Your task to perform on an android device: choose inbox layout in the gmail app Image 0: 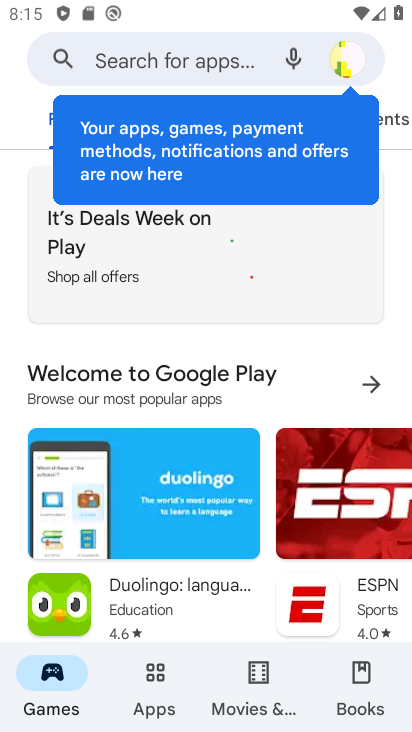
Step 0: press home button
Your task to perform on an android device: choose inbox layout in the gmail app Image 1: 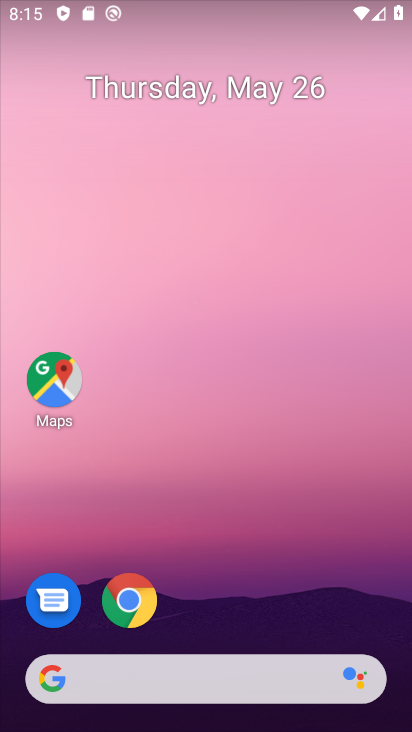
Step 1: click (296, 61)
Your task to perform on an android device: choose inbox layout in the gmail app Image 2: 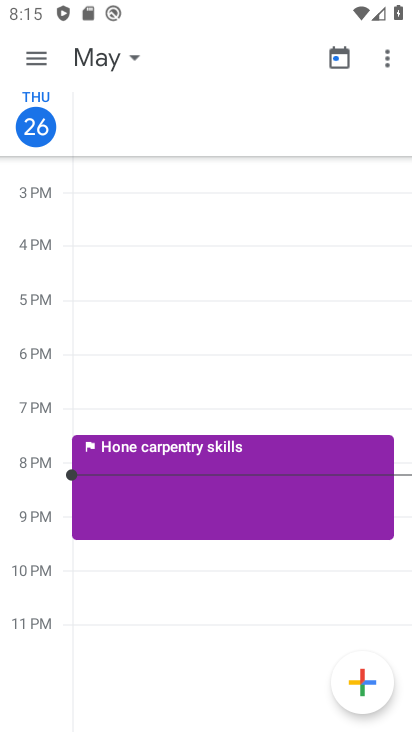
Step 2: press home button
Your task to perform on an android device: choose inbox layout in the gmail app Image 3: 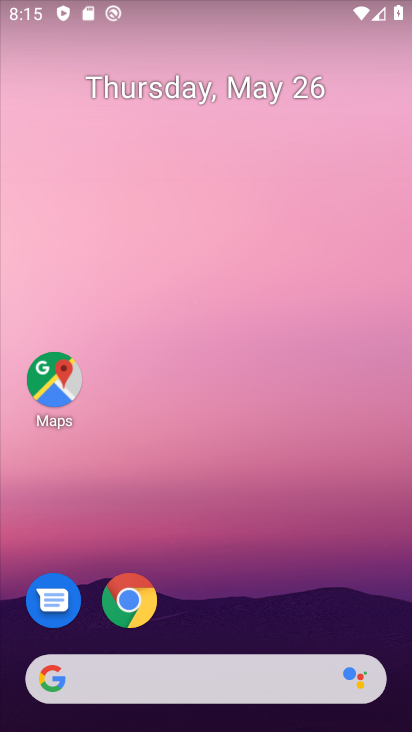
Step 3: drag from (229, 624) to (147, 2)
Your task to perform on an android device: choose inbox layout in the gmail app Image 4: 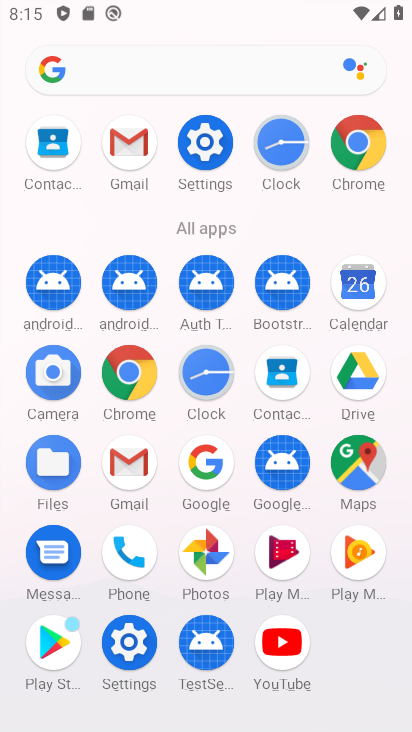
Step 4: click (124, 150)
Your task to perform on an android device: choose inbox layout in the gmail app Image 5: 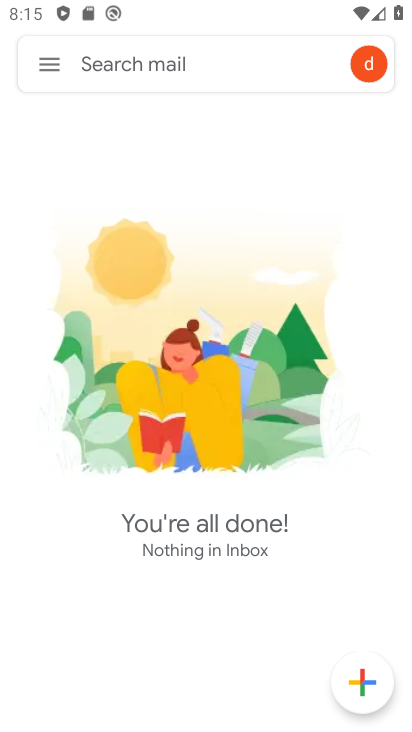
Step 5: click (54, 60)
Your task to perform on an android device: choose inbox layout in the gmail app Image 6: 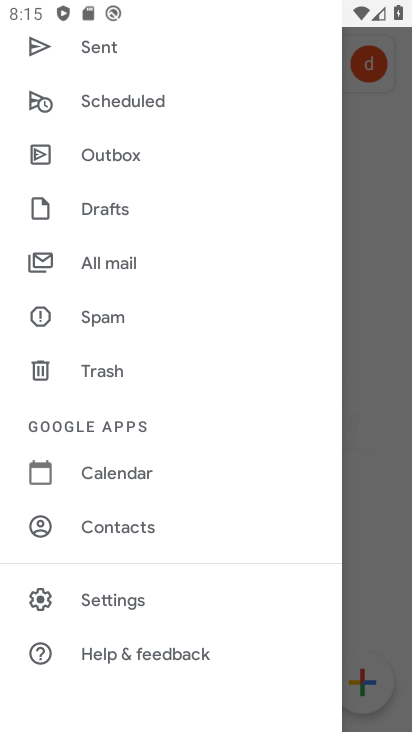
Step 6: click (171, 609)
Your task to perform on an android device: choose inbox layout in the gmail app Image 7: 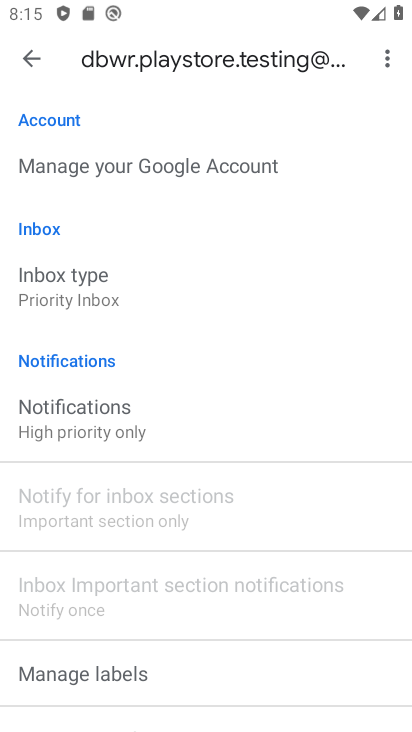
Step 7: click (143, 295)
Your task to perform on an android device: choose inbox layout in the gmail app Image 8: 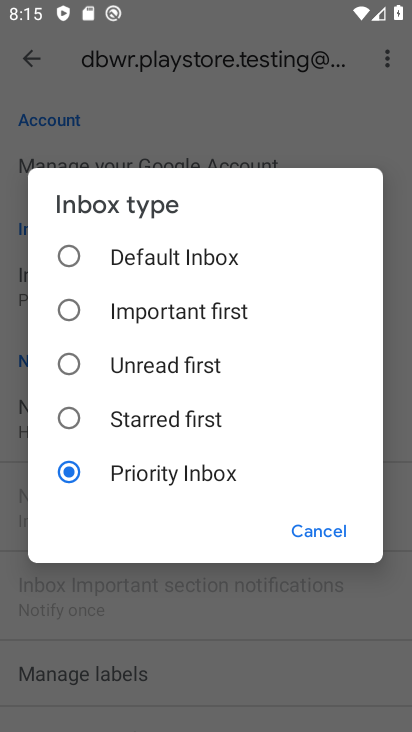
Step 8: click (202, 364)
Your task to perform on an android device: choose inbox layout in the gmail app Image 9: 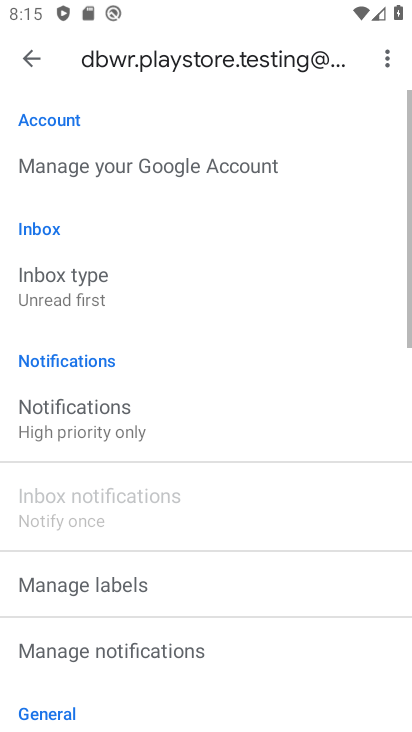
Step 9: task complete